Your task to perform on an android device: See recent photos Image 0: 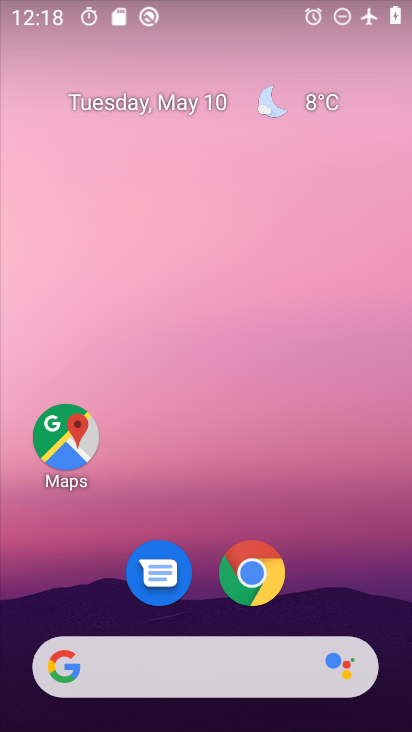
Step 0: drag from (337, 549) to (393, 153)
Your task to perform on an android device: See recent photos Image 1: 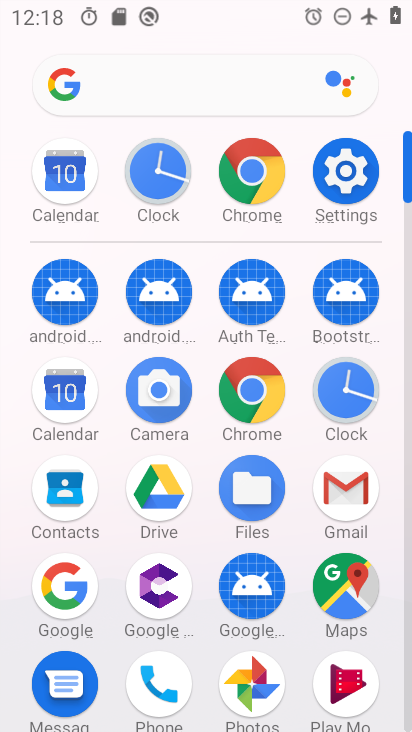
Step 1: click (252, 676)
Your task to perform on an android device: See recent photos Image 2: 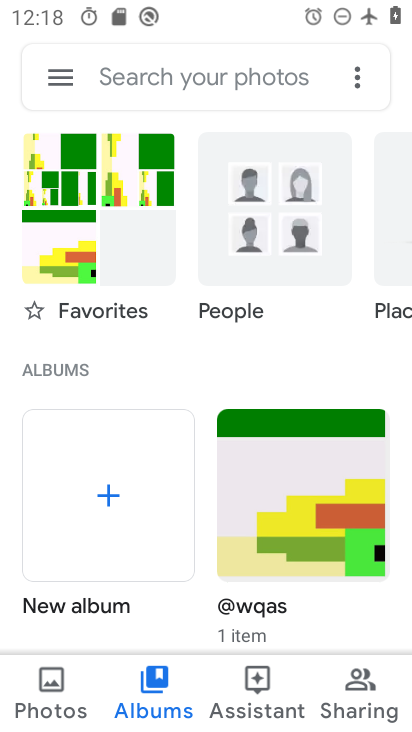
Step 2: click (70, 690)
Your task to perform on an android device: See recent photos Image 3: 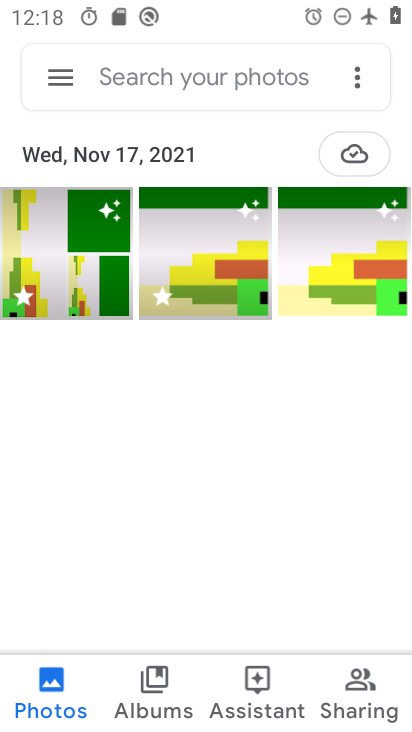
Step 3: task complete